Your task to perform on an android device: turn on wifi Image 0: 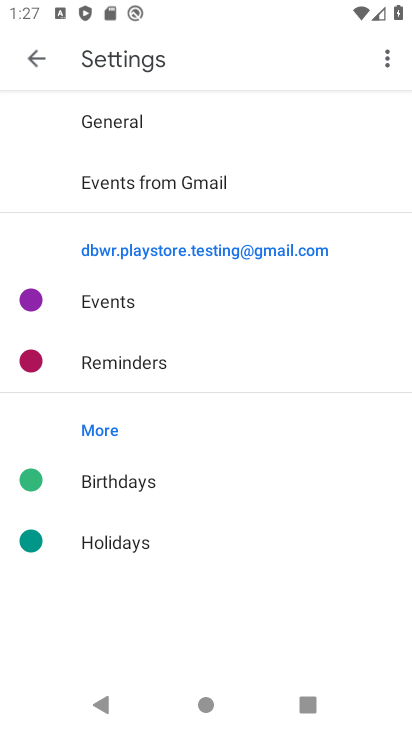
Step 0: press home button
Your task to perform on an android device: turn on wifi Image 1: 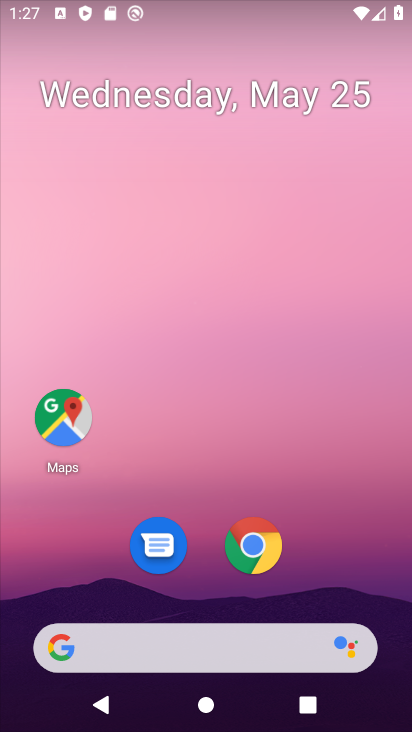
Step 1: drag from (367, 563) to (256, 217)
Your task to perform on an android device: turn on wifi Image 2: 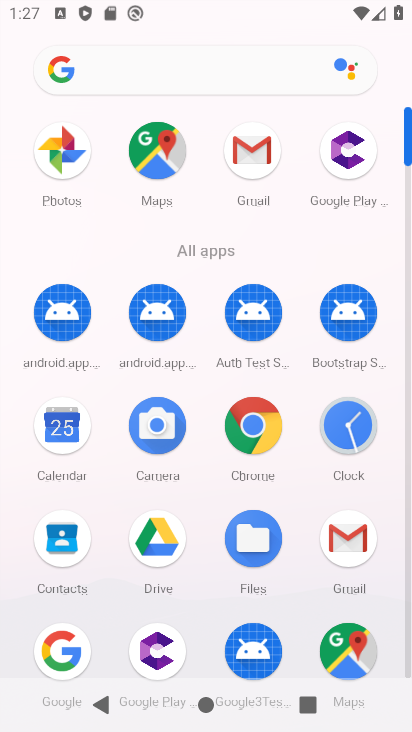
Step 2: click (412, 321)
Your task to perform on an android device: turn on wifi Image 3: 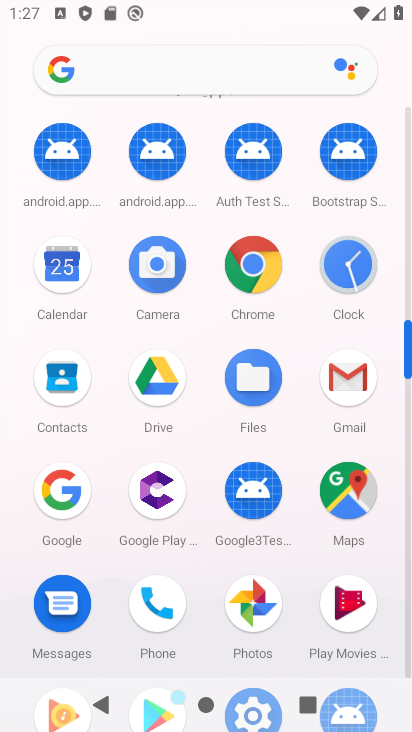
Step 3: click (409, 661)
Your task to perform on an android device: turn on wifi Image 4: 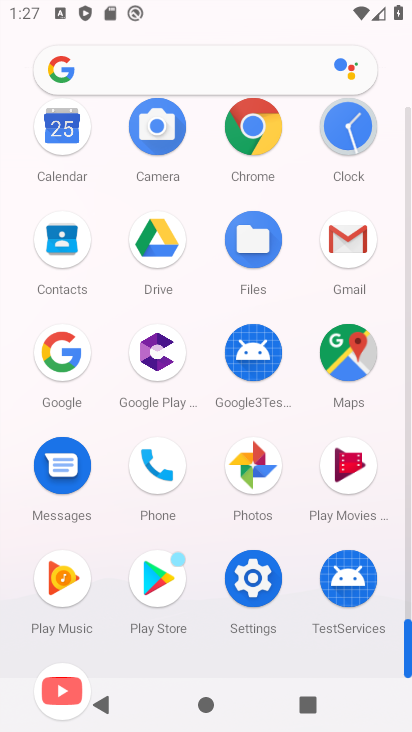
Step 4: click (267, 630)
Your task to perform on an android device: turn on wifi Image 5: 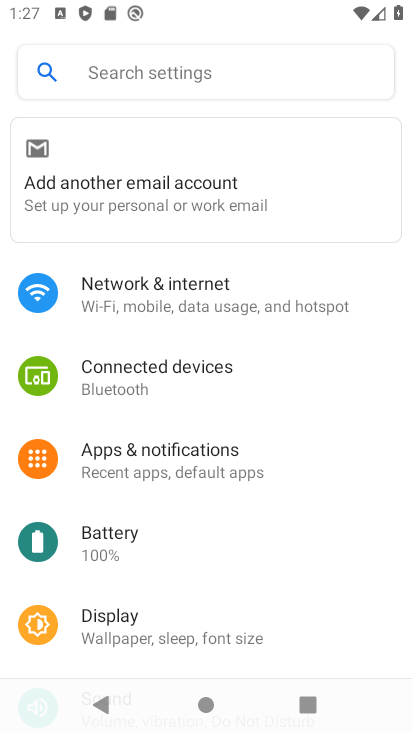
Step 5: click (286, 324)
Your task to perform on an android device: turn on wifi Image 6: 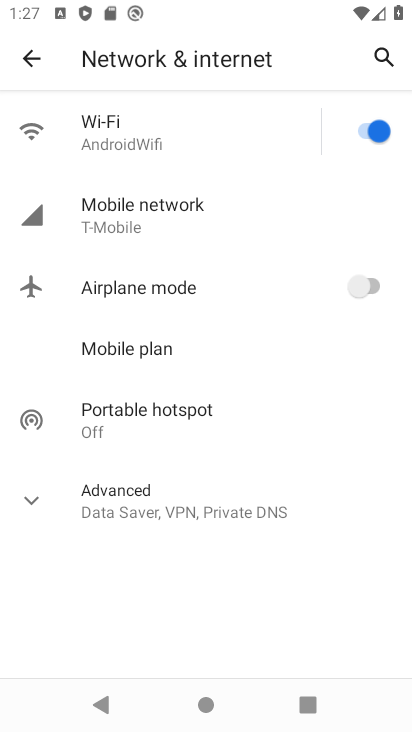
Step 6: task complete